Your task to perform on an android device: Open wifi settings Image 0: 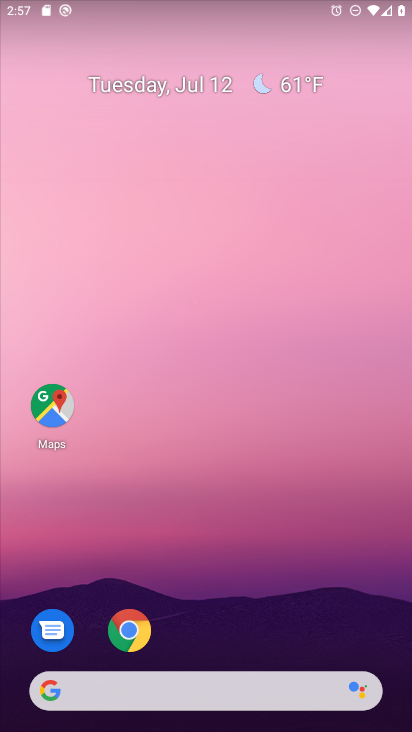
Step 0: drag from (207, 619) to (269, 175)
Your task to perform on an android device: Open wifi settings Image 1: 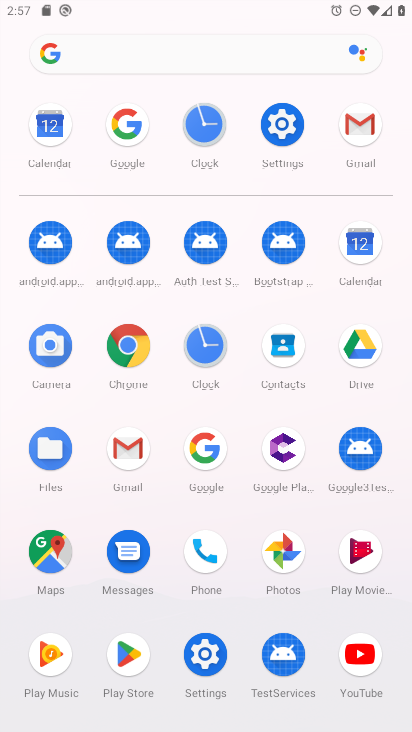
Step 1: click (279, 142)
Your task to perform on an android device: Open wifi settings Image 2: 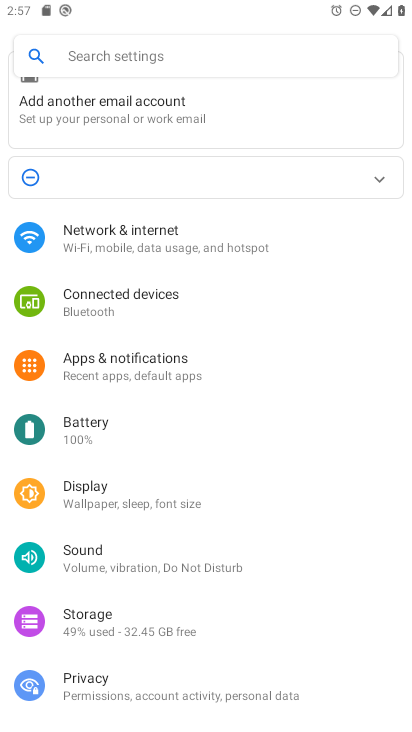
Step 2: click (146, 241)
Your task to perform on an android device: Open wifi settings Image 3: 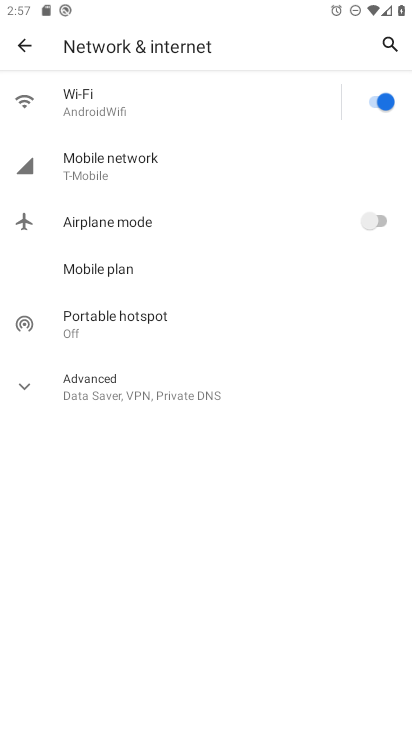
Step 3: click (137, 102)
Your task to perform on an android device: Open wifi settings Image 4: 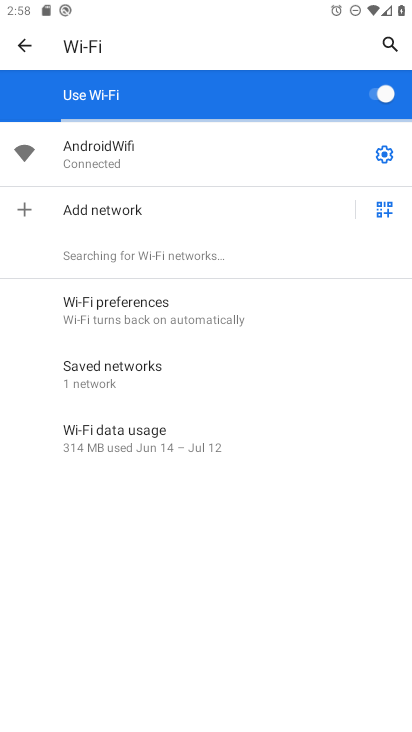
Step 4: task complete